Your task to perform on an android device: allow notifications from all sites in the chrome app Image 0: 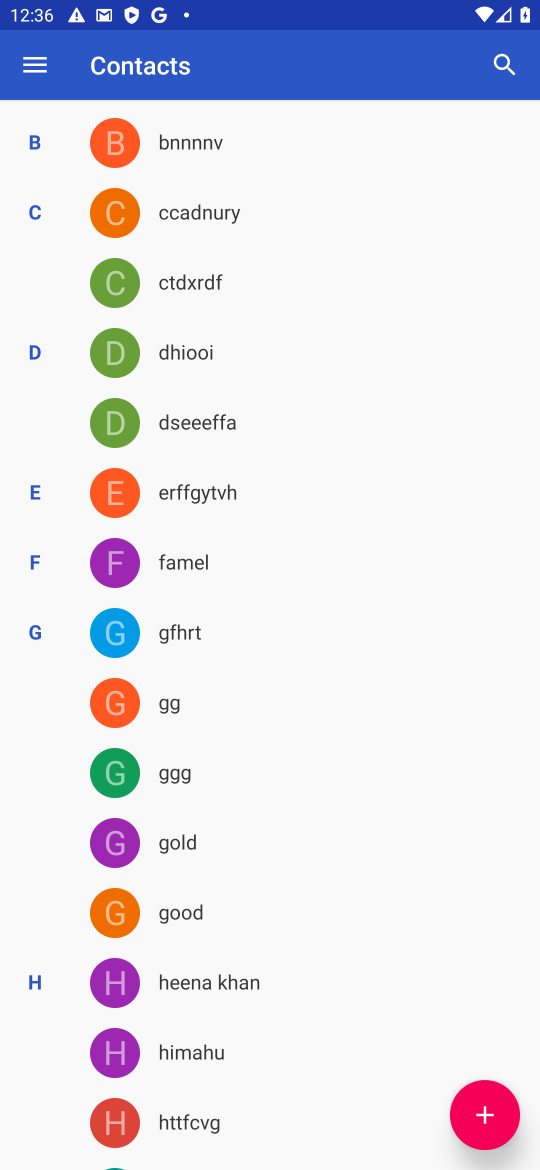
Step 0: task complete